Your task to perform on an android device: find photos in the google photos app Image 0: 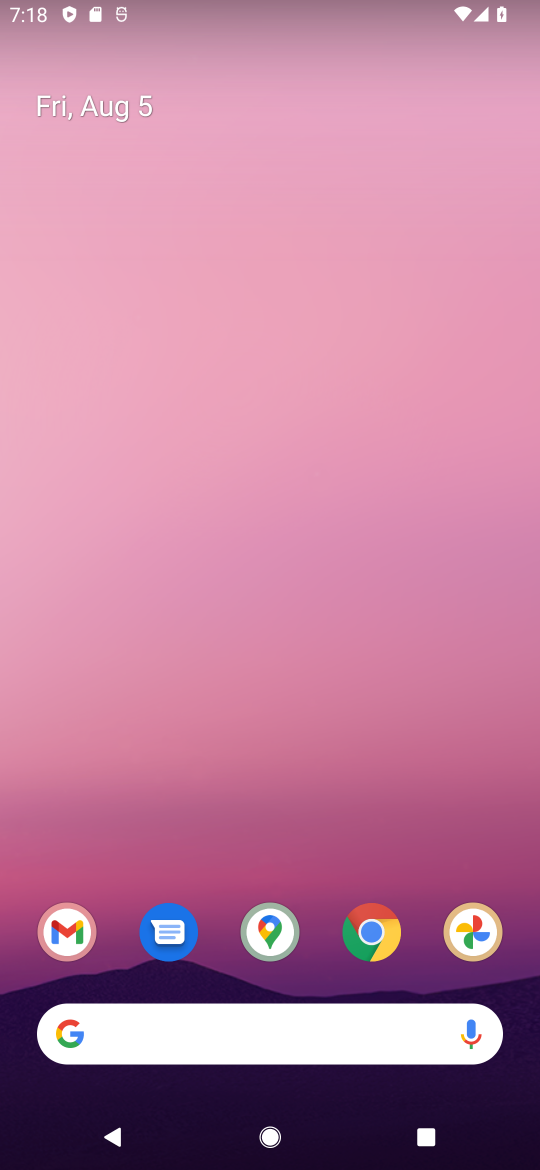
Step 0: drag from (323, 813) to (359, 55)
Your task to perform on an android device: find photos in the google photos app Image 1: 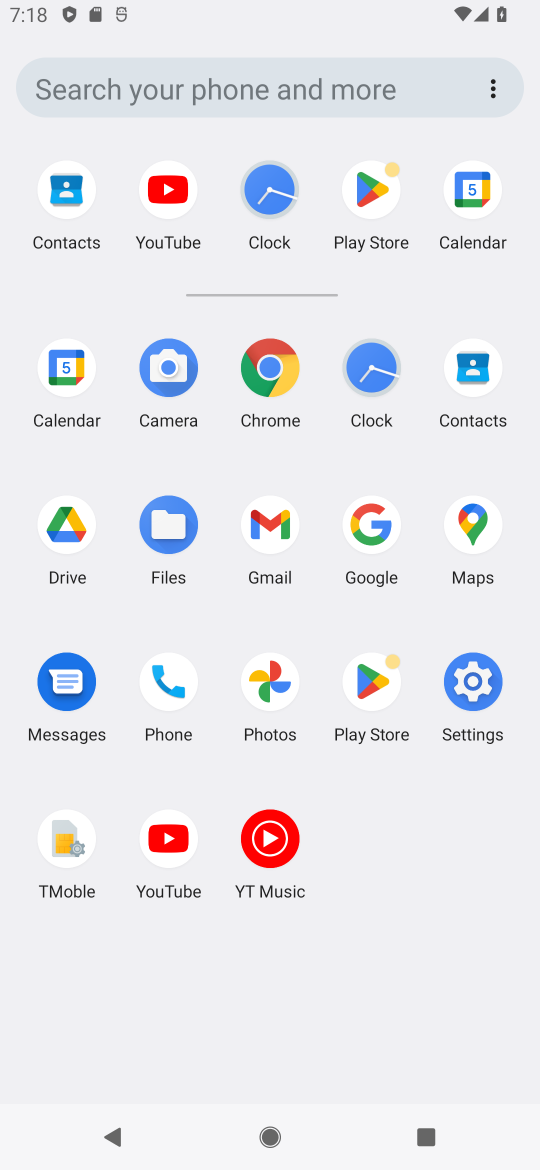
Step 1: click (268, 693)
Your task to perform on an android device: find photos in the google photos app Image 2: 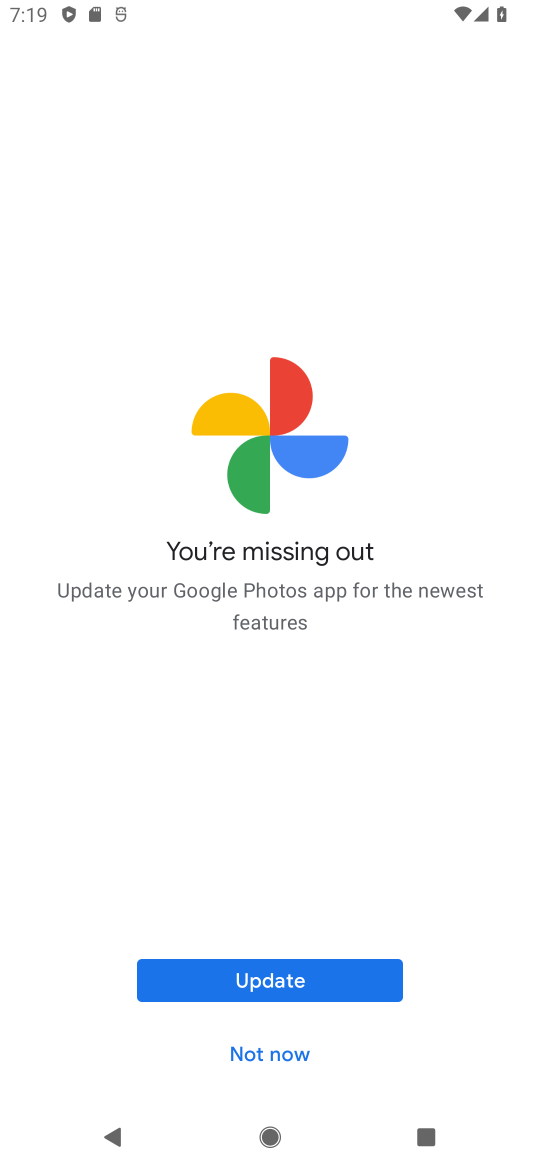
Step 2: click (297, 1044)
Your task to perform on an android device: find photos in the google photos app Image 3: 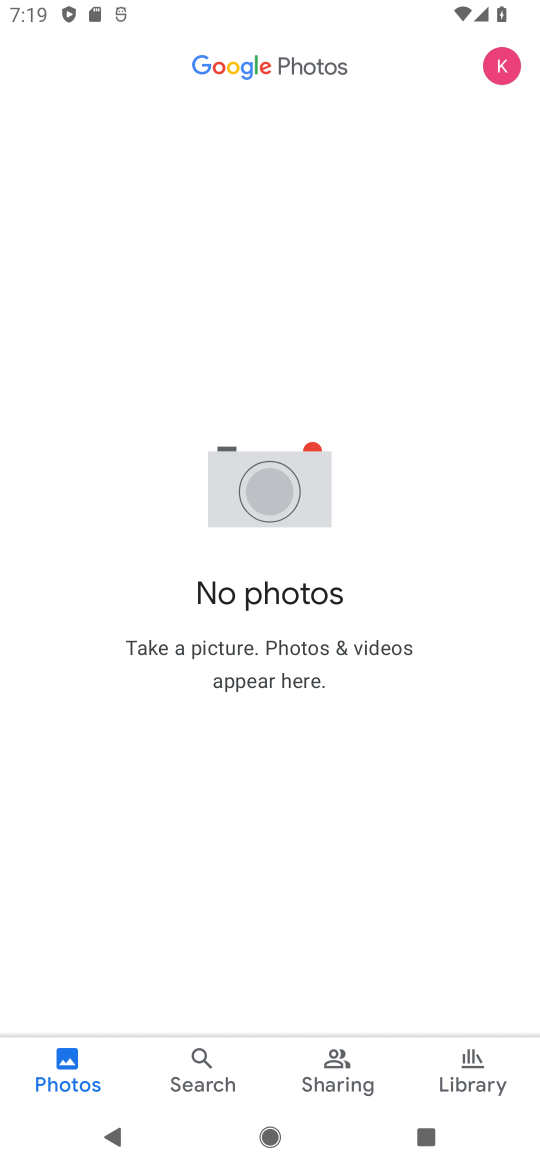
Step 3: task complete